Your task to perform on an android device: turn off notifications in google photos Image 0: 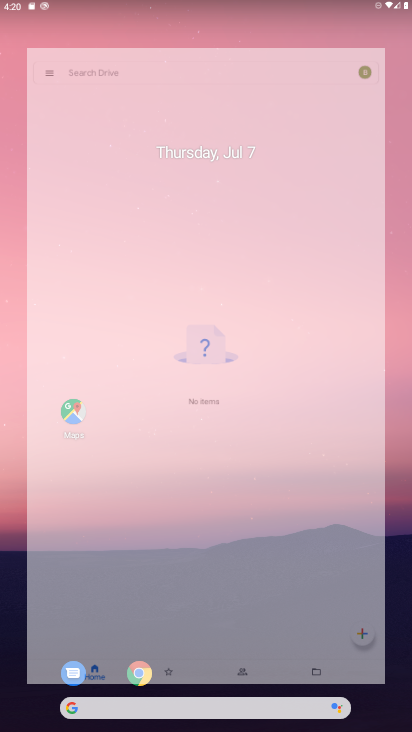
Step 0: press home button
Your task to perform on an android device: turn off notifications in google photos Image 1: 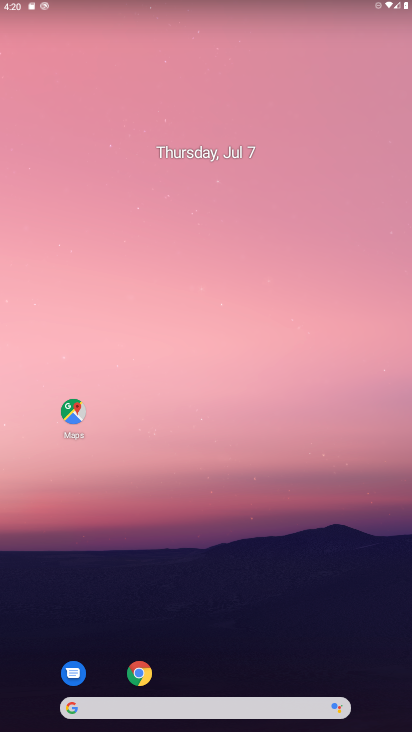
Step 1: drag from (225, 683) to (215, 0)
Your task to perform on an android device: turn off notifications in google photos Image 2: 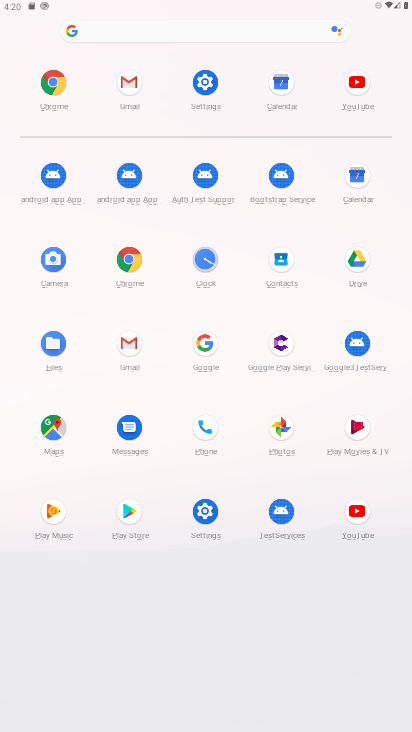
Step 2: click (276, 421)
Your task to perform on an android device: turn off notifications in google photos Image 3: 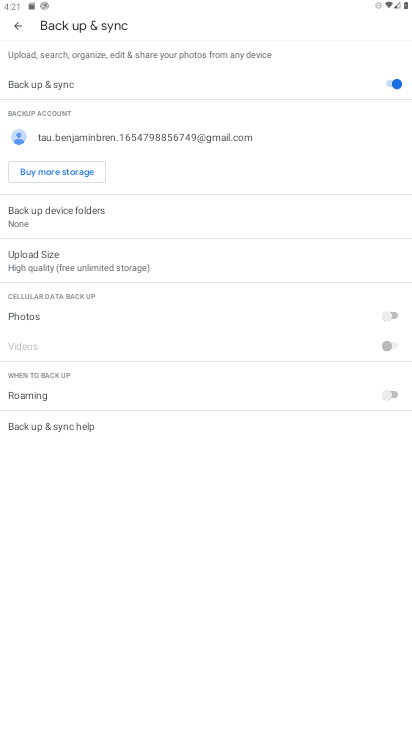
Step 3: click (16, 25)
Your task to perform on an android device: turn off notifications in google photos Image 4: 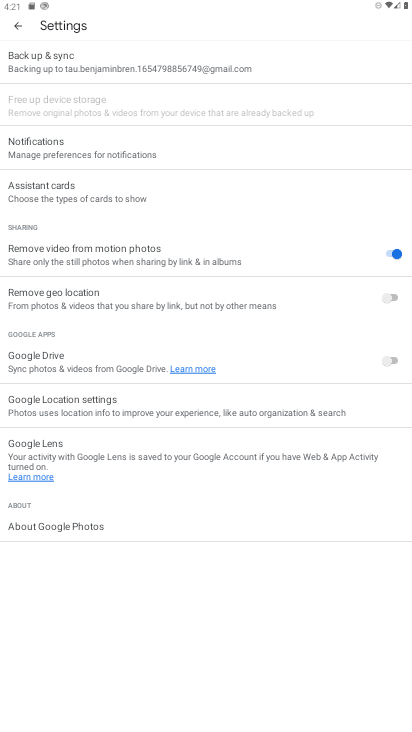
Step 4: click (19, 25)
Your task to perform on an android device: turn off notifications in google photos Image 5: 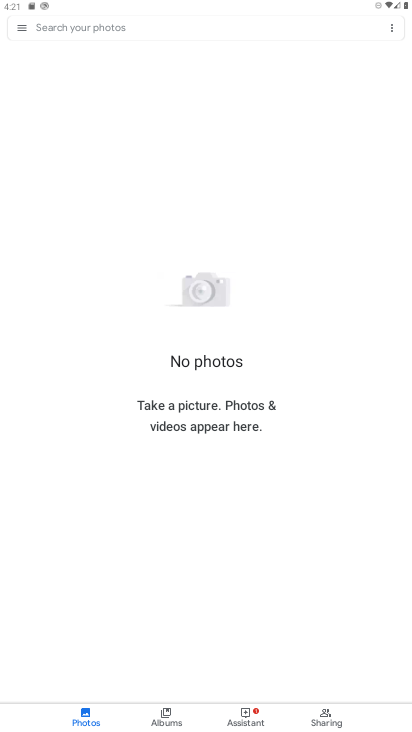
Step 5: click (14, 25)
Your task to perform on an android device: turn off notifications in google photos Image 6: 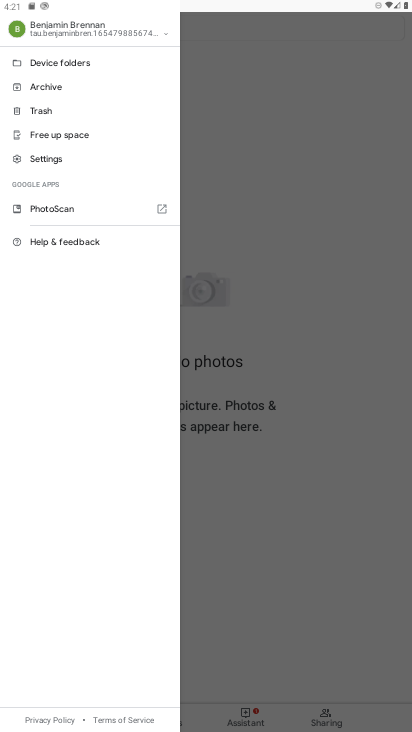
Step 6: click (56, 150)
Your task to perform on an android device: turn off notifications in google photos Image 7: 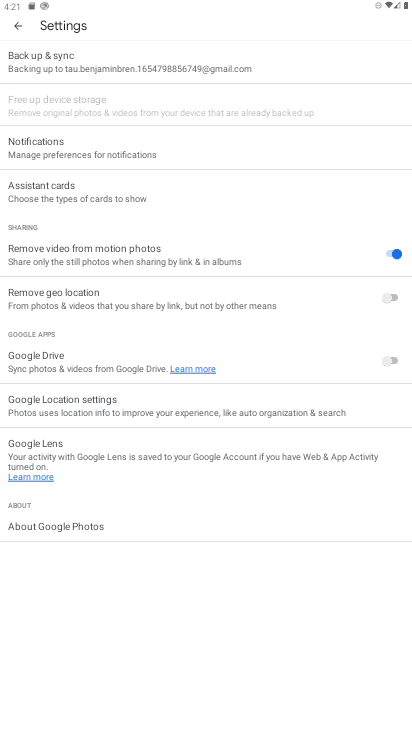
Step 7: click (64, 151)
Your task to perform on an android device: turn off notifications in google photos Image 8: 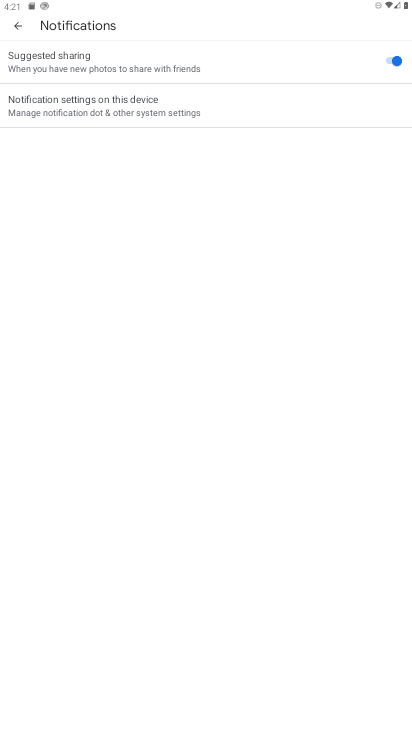
Step 8: click (389, 58)
Your task to perform on an android device: turn off notifications in google photos Image 9: 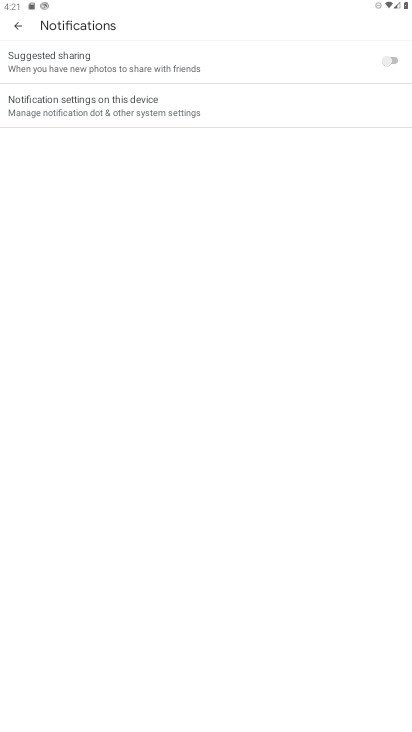
Step 9: task complete